Your task to perform on an android device: delete browsing data in the chrome app Image 0: 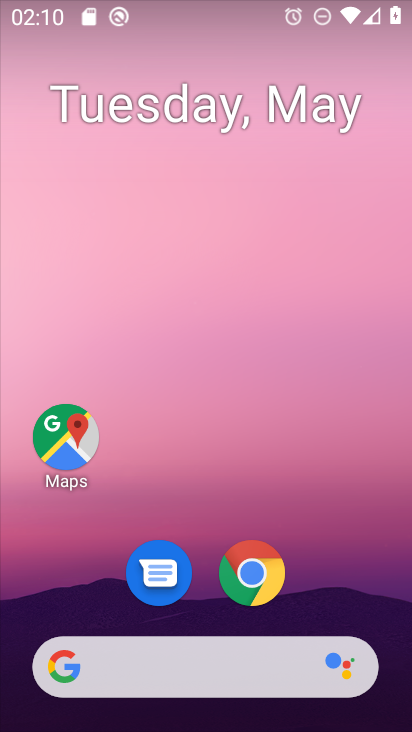
Step 0: click (253, 570)
Your task to perform on an android device: delete browsing data in the chrome app Image 1: 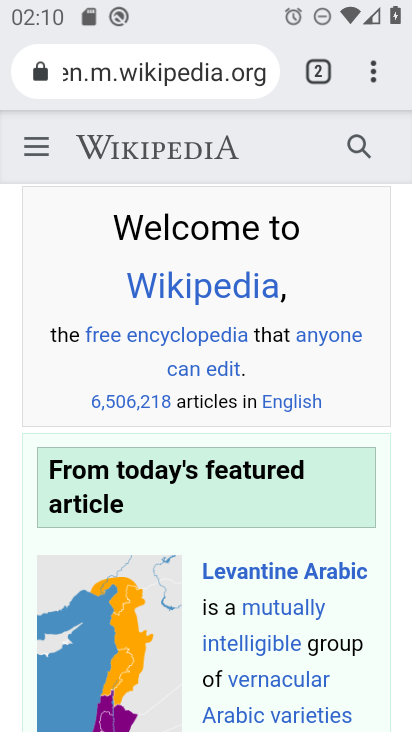
Step 1: click (357, 67)
Your task to perform on an android device: delete browsing data in the chrome app Image 2: 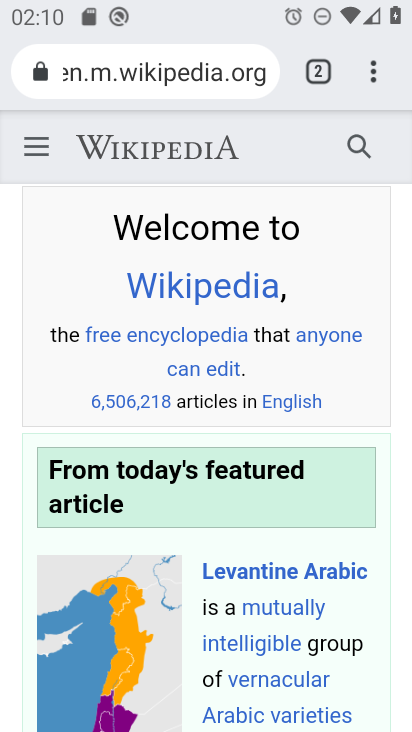
Step 2: click (370, 74)
Your task to perform on an android device: delete browsing data in the chrome app Image 3: 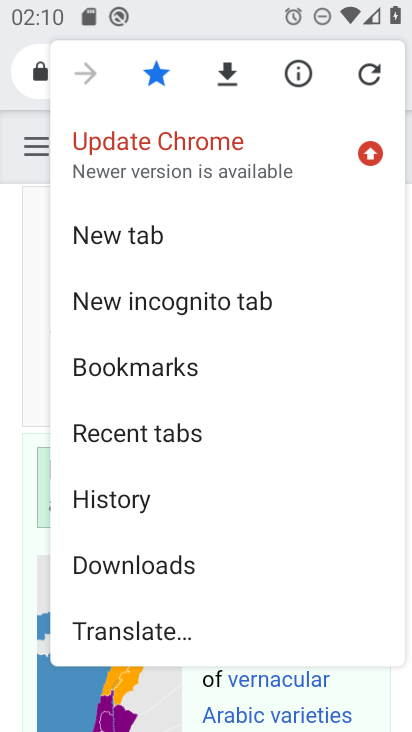
Step 3: click (132, 505)
Your task to perform on an android device: delete browsing data in the chrome app Image 4: 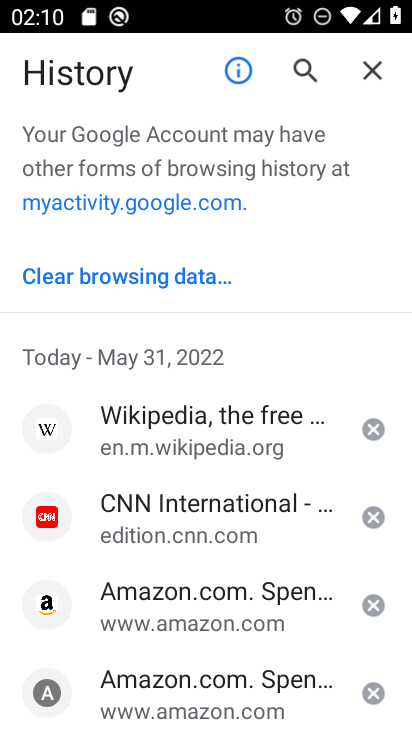
Step 4: click (137, 290)
Your task to perform on an android device: delete browsing data in the chrome app Image 5: 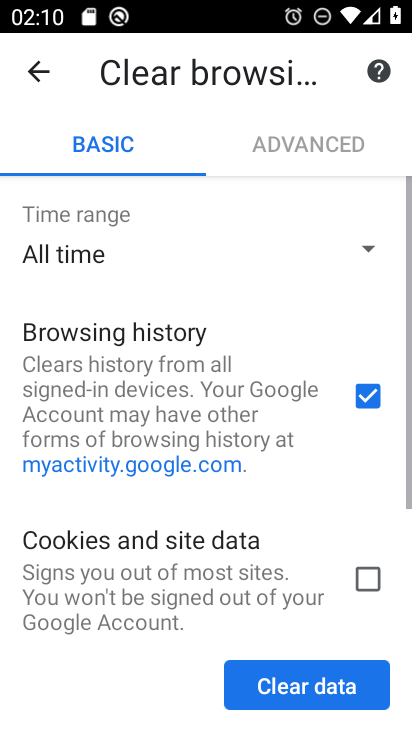
Step 5: click (330, 685)
Your task to perform on an android device: delete browsing data in the chrome app Image 6: 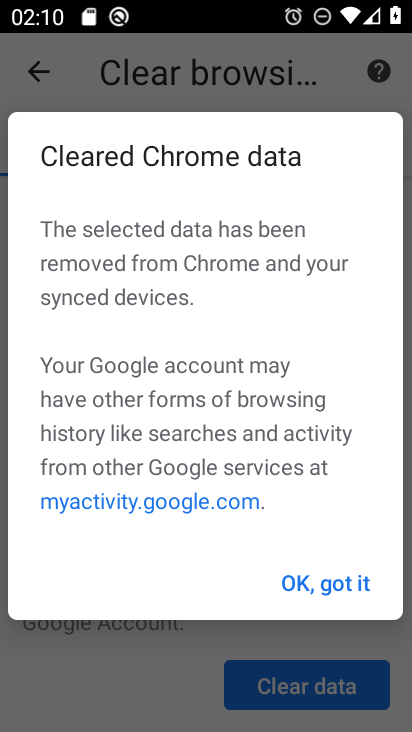
Step 6: click (327, 583)
Your task to perform on an android device: delete browsing data in the chrome app Image 7: 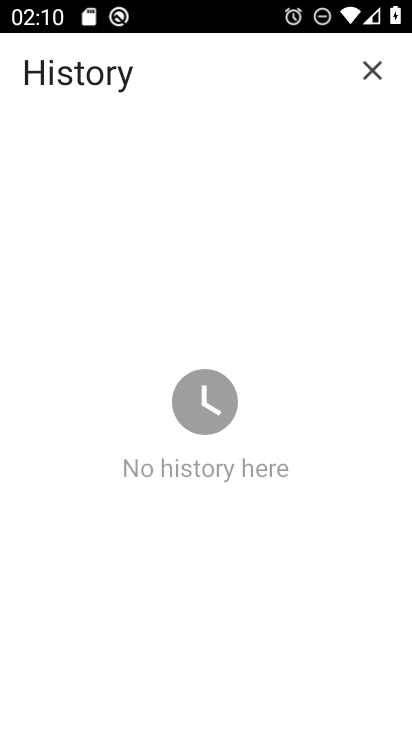
Step 7: click (362, 66)
Your task to perform on an android device: delete browsing data in the chrome app Image 8: 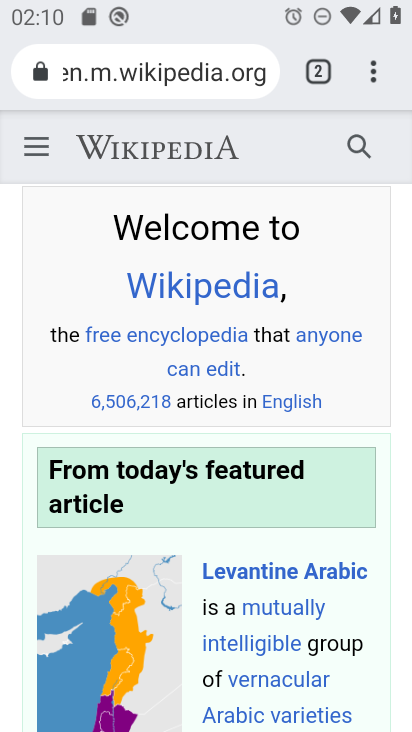
Step 8: task complete